Your task to perform on an android device: all mails in gmail Image 0: 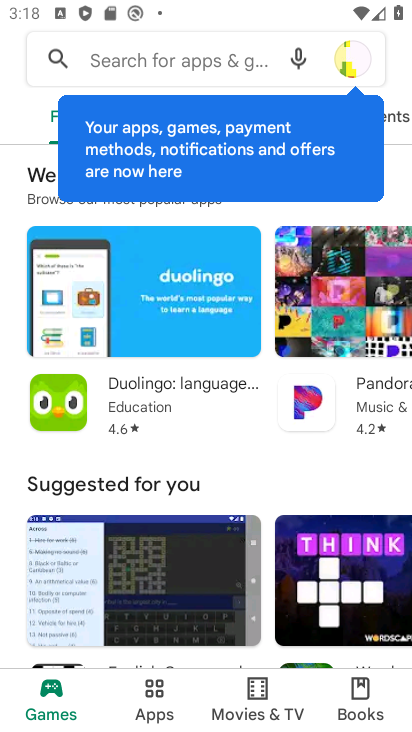
Step 0: press home button
Your task to perform on an android device: all mails in gmail Image 1: 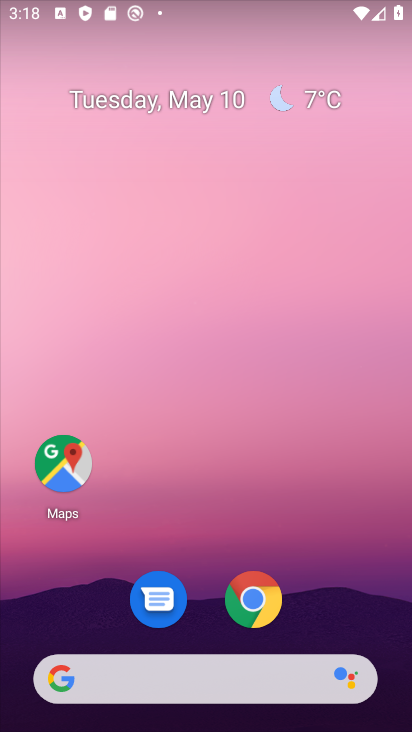
Step 1: drag from (275, 631) to (262, 121)
Your task to perform on an android device: all mails in gmail Image 2: 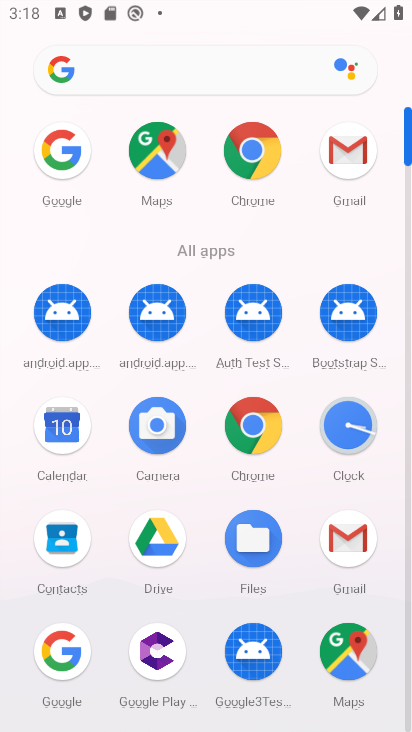
Step 2: click (374, 560)
Your task to perform on an android device: all mails in gmail Image 3: 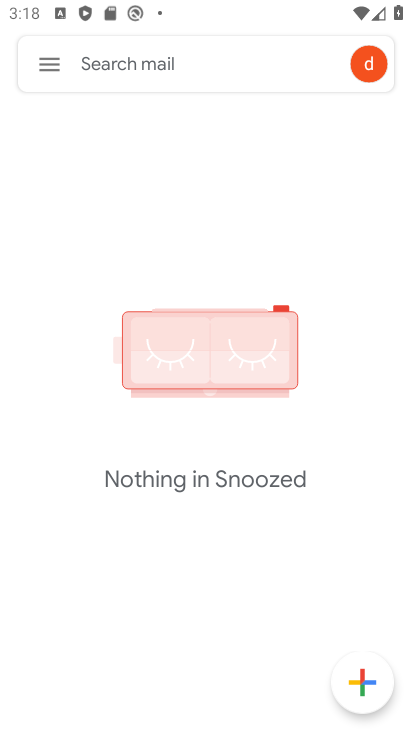
Step 3: click (57, 62)
Your task to perform on an android device: all mails in gmail Image 4: 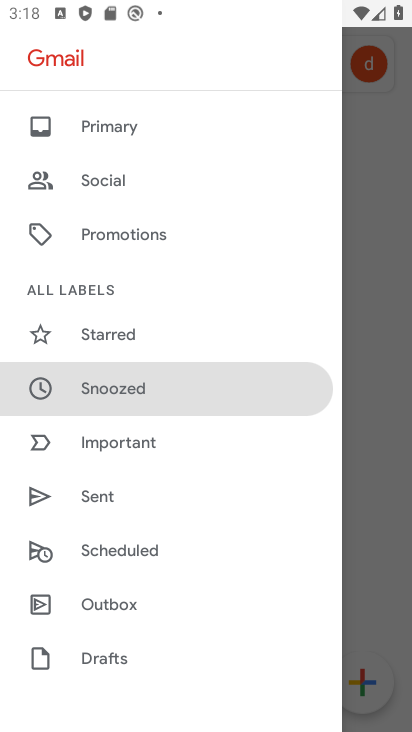
Step 4: drag from (135, 596) to (133, 31)
Your task to perform on an android device: all mails in gmail Image 5: 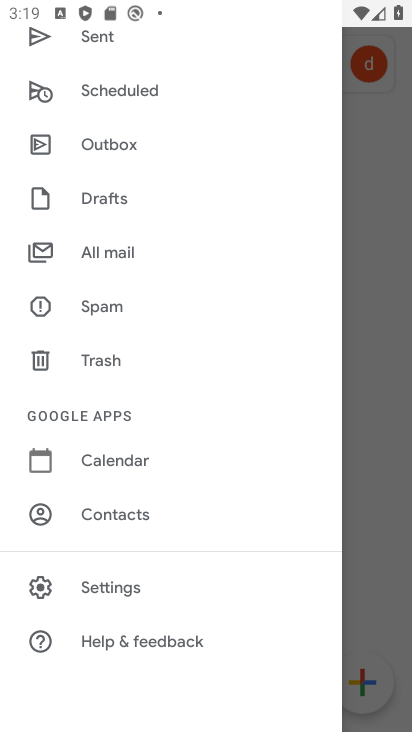
Step 5: click (101, 227)
Your task to perform on an android device: all mails in gmail Image 6: 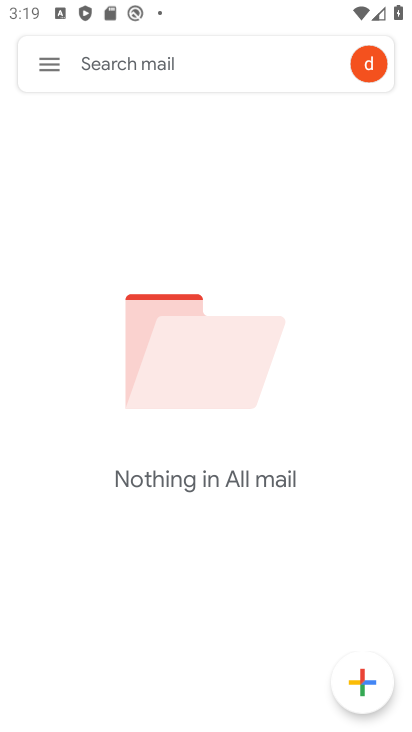
Step 6: task complete